Your task to perform on an android device: open app "Google Find My Device" (install if not already installed) Image 0: 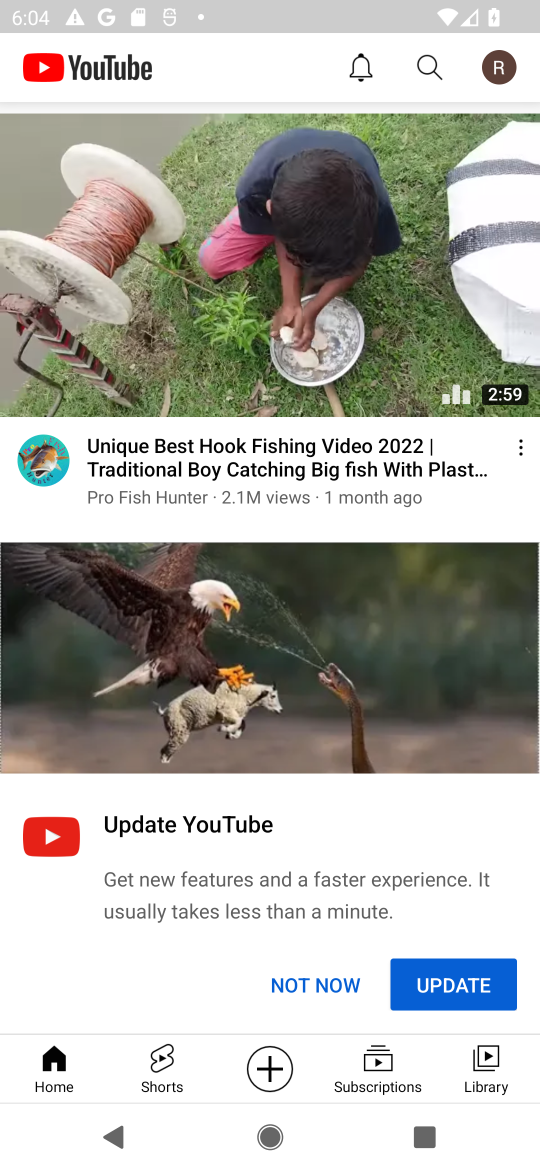
Step 0: press home button
Your task to perform on an android device: open app "Google Find My Device" (install if not already installed) Image 1: 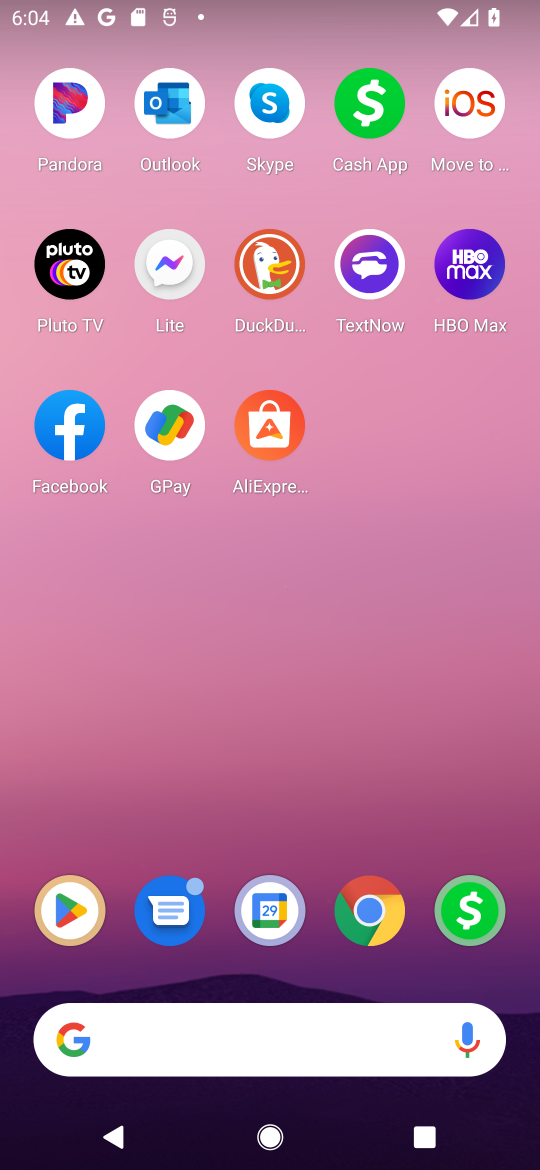
Step 1: drag from (244, 994) to (232, 327)
Your task to perform on an android device: open app "Google Find My Device" (install if not already installed) Image 2: 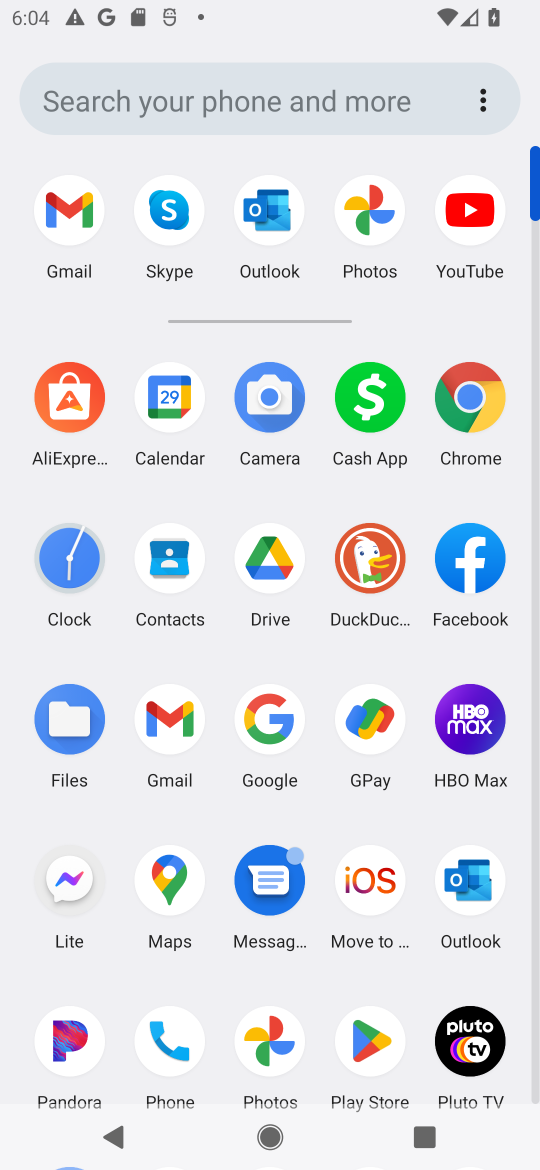
Step 2: click (357, 1046)
Your task to perform on an android device: open app "Google Find My Device" (install if not already installed) Image 3: 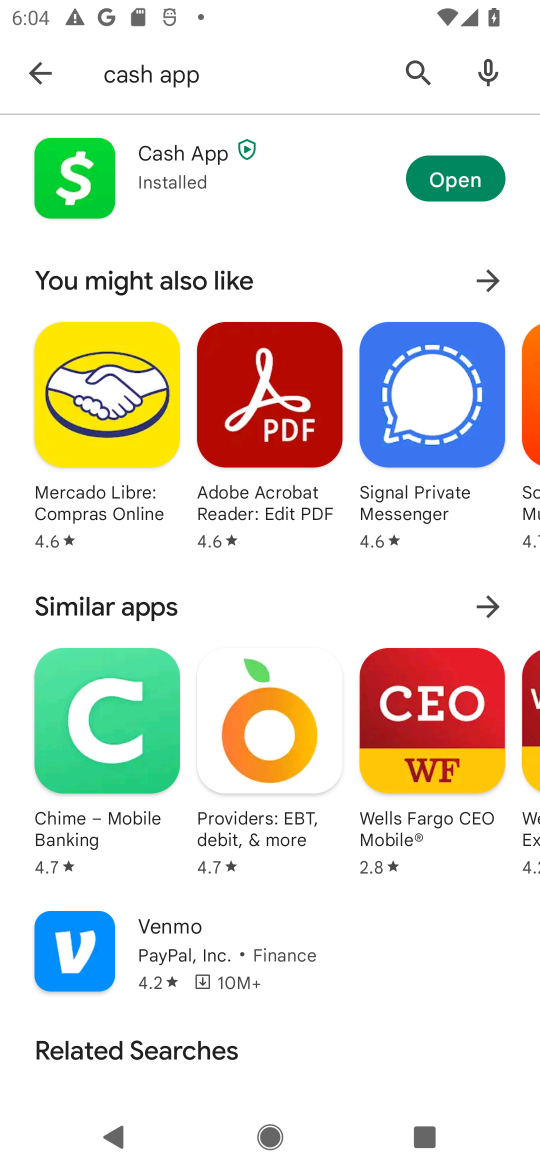
Step 3: click (32, 77)
Your task to perform on an android device: open app "Google Find My Device" (install if not already installed) Image 4: 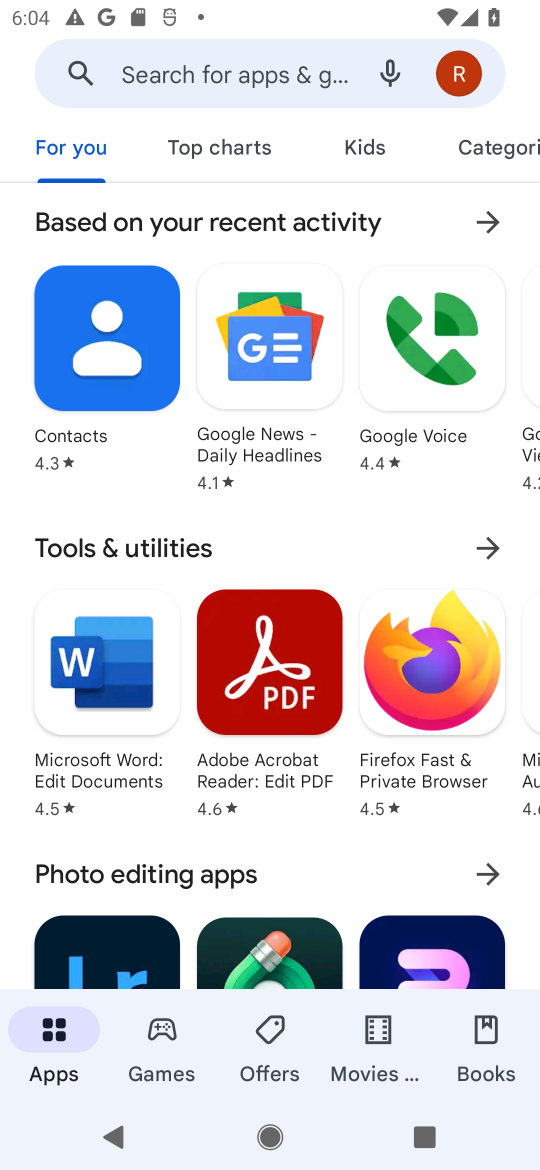
Step 4: click (157, 60)
Your task to perform on an android device: open app "Google Find My Device" (install if not already installed) Image 5: 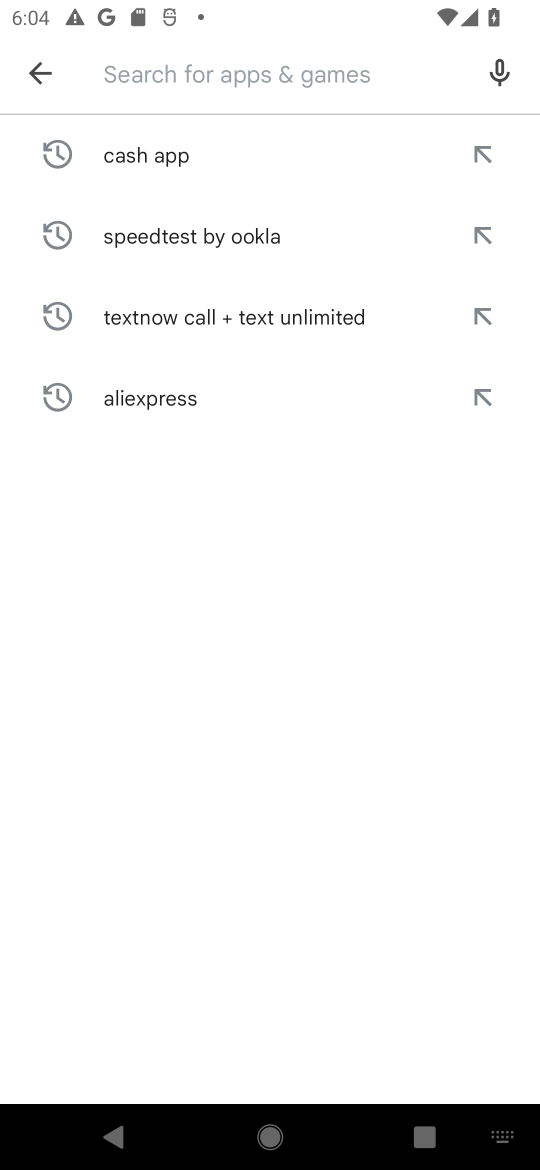
Step 5: click (161, 74)
Your task to perform on an android device: open app "Google Find My Device" (install if not already installed) Image 6: 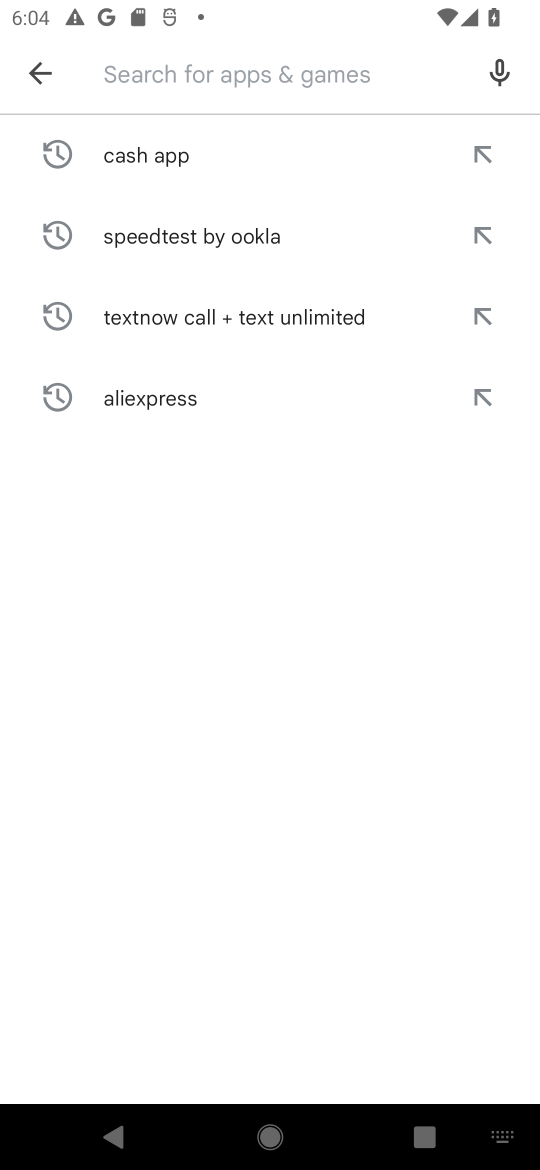
Step 6: click (155, 62)
Your task to perform on an android device: open app "Google Find My Device" (install if not already installed) Image 7: 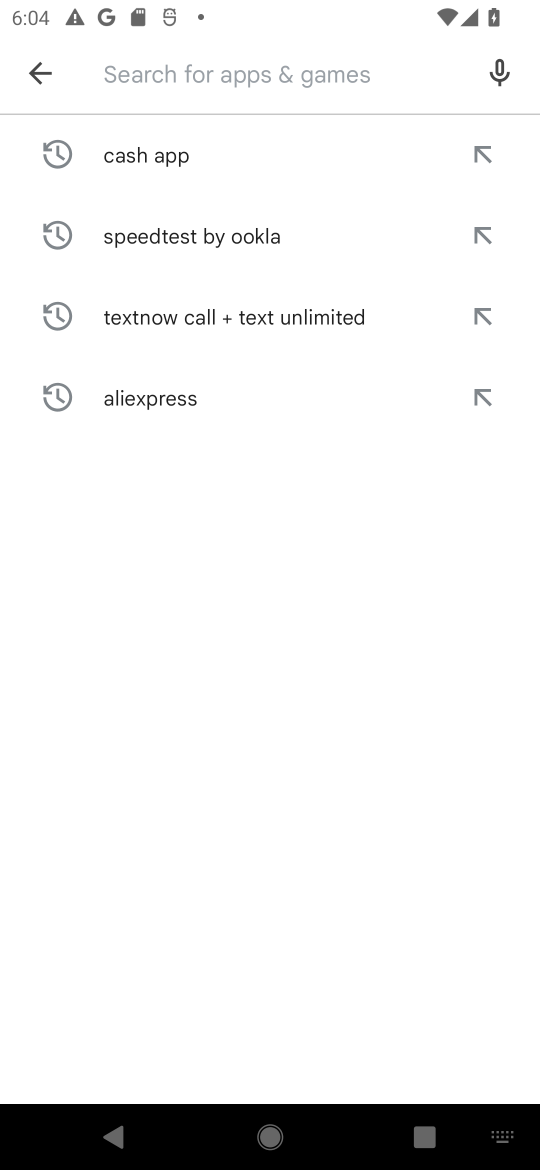
Step 7: type "Google Find My Device"
Your task to perform on an android device: open app "Google Find My Device" (install if not already installed) Image 8: 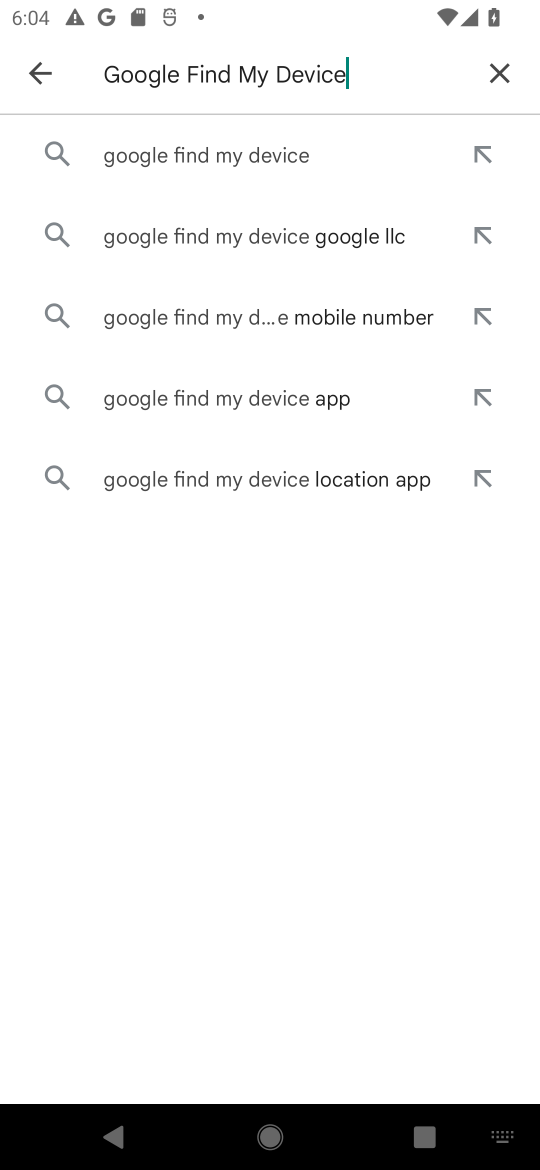
Step 8: click (257, 159)
Your task to perform on an android device: open app "Google Find My Device" (install if not already installed) Image 9: 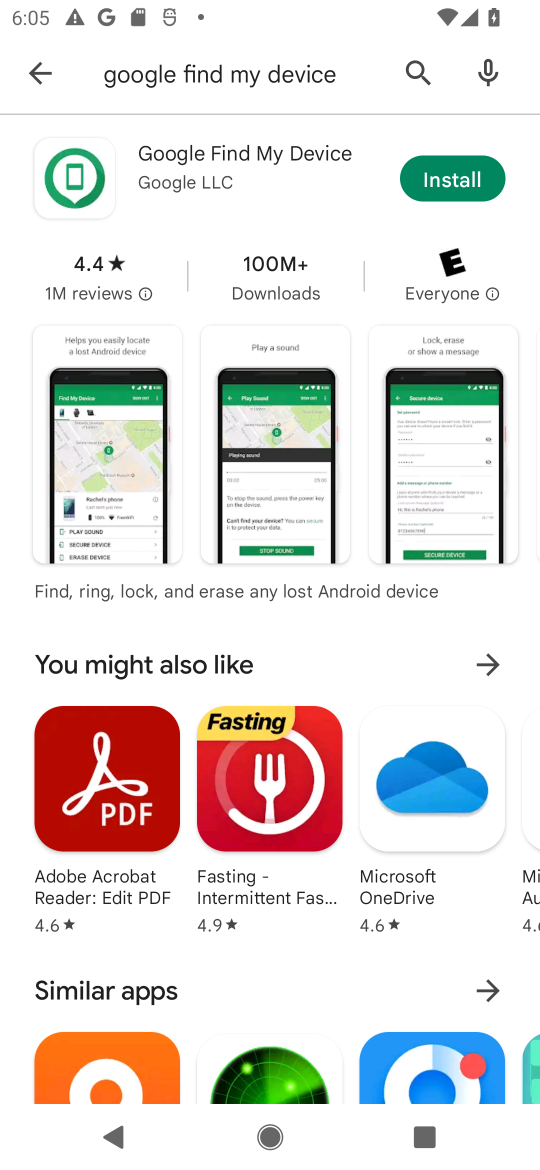
Step 9: click (463, 185)
Your task to perform on an android device: open app "Google Find My Device" (install if not already installed) Image 10: 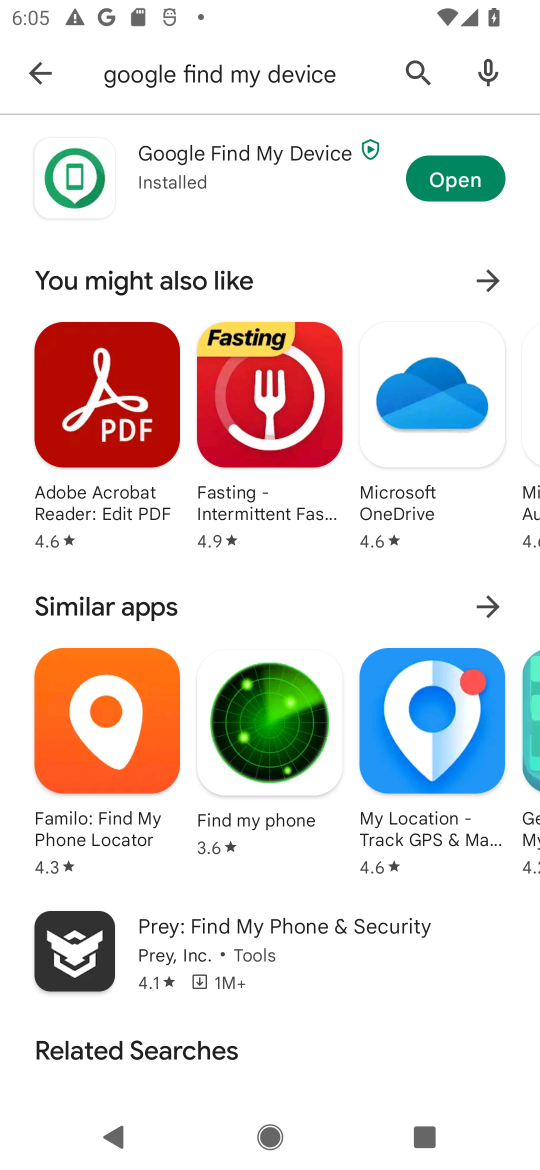
Step 10: click (434, 175)
Your task to perform on an android device: open app "Google Find My Device" (install if not already installed) Image 11: 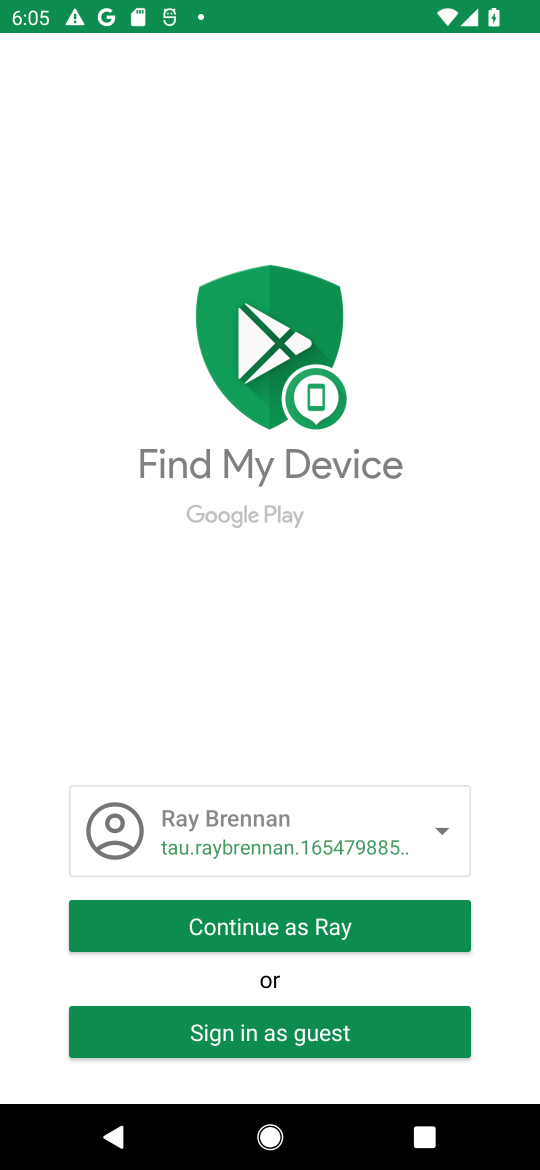
Step 11: task complete